Your task to perform on an android device: What's the weather? Image 0: 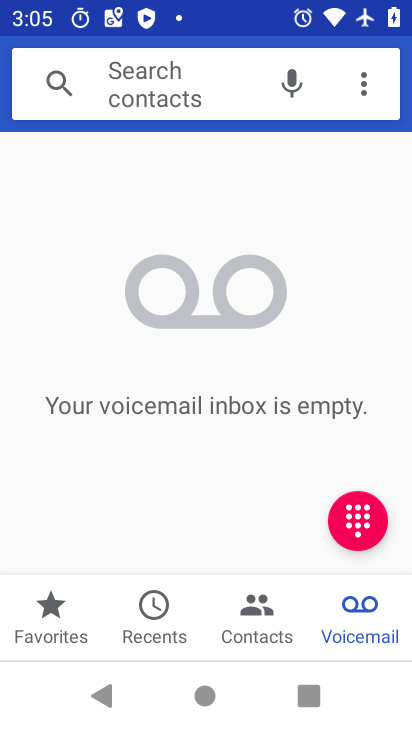
Step 0: press home button
Your task to perform on an android device: What's the weather? Image 1: 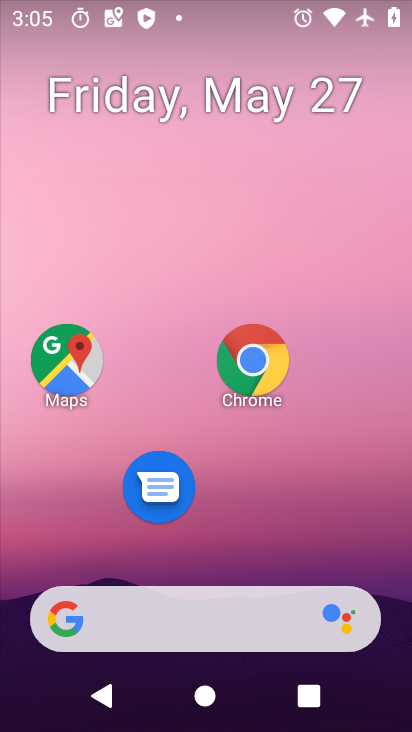
Step 1: drag from (249, 527) to (270, 64)
Your task to perform on an android device: What's the weather? Image 2: 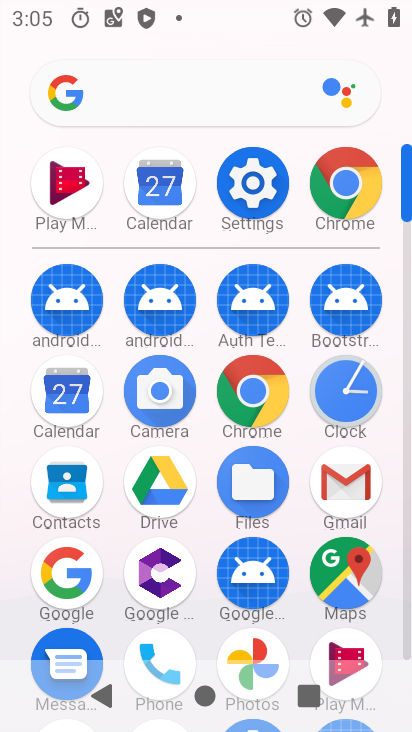
Step 2: click (69, 567)
Your task to perform on an android device: What's the weather? Image 3: 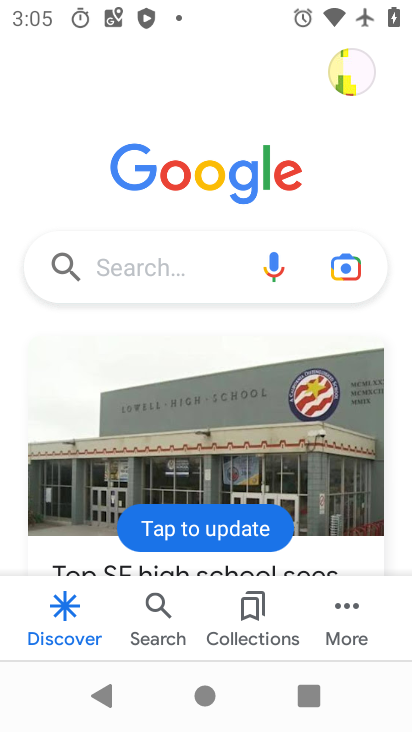
Step 3: click (156, 274)
Your task to perform on an android device: What's the weather? Image 4: 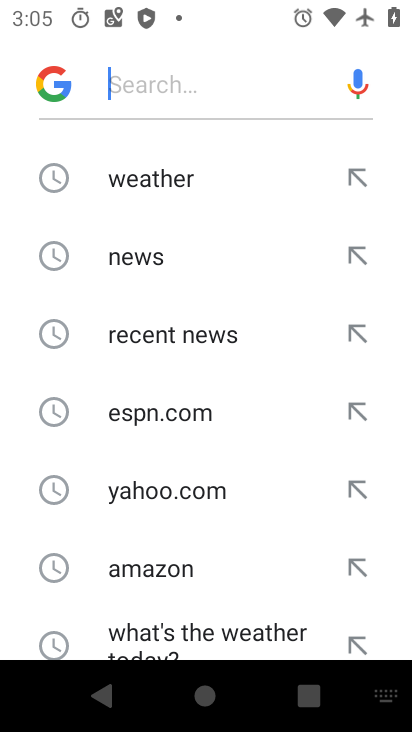
Step 4: click (163, 182)
Your task to perform on an android device: What's the weather? Image 5: 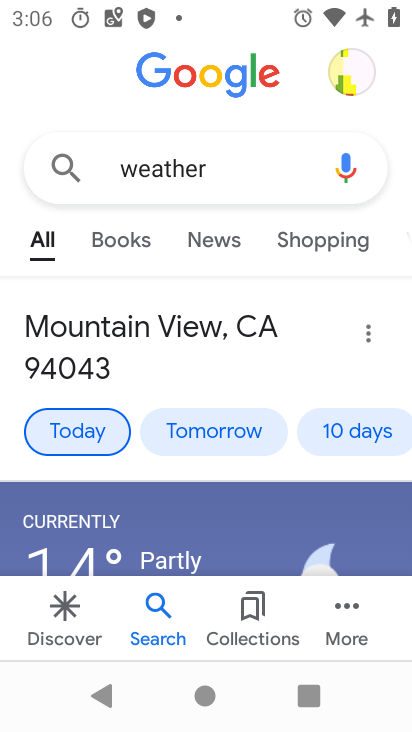
Step 5: task complete